Your task to perform on an android device: Turn on the flashlight Image 0: 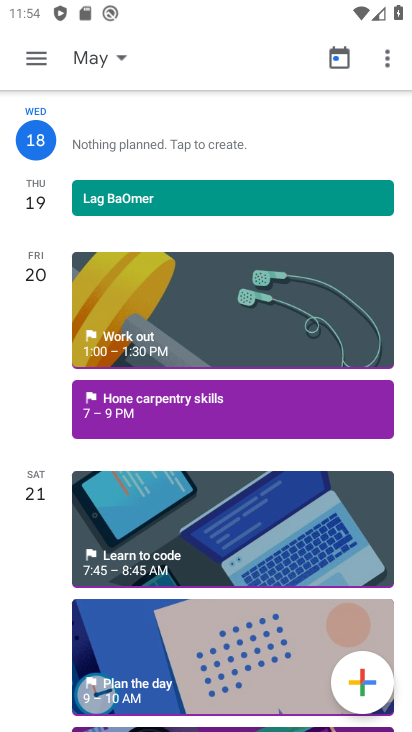
Step 0: press home button
Your task to perform on an android device: Turn on the flashlight Image 1: 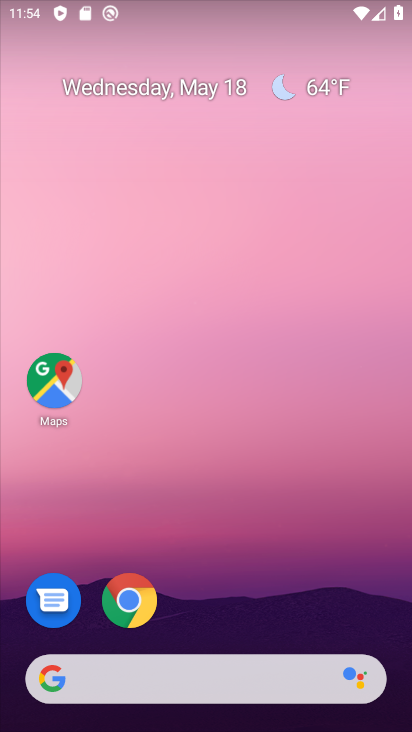
Step 1: drag from (220, 646) to (182, 87)
Your task to perform on an android device: Turn on the flashlight Image 2: 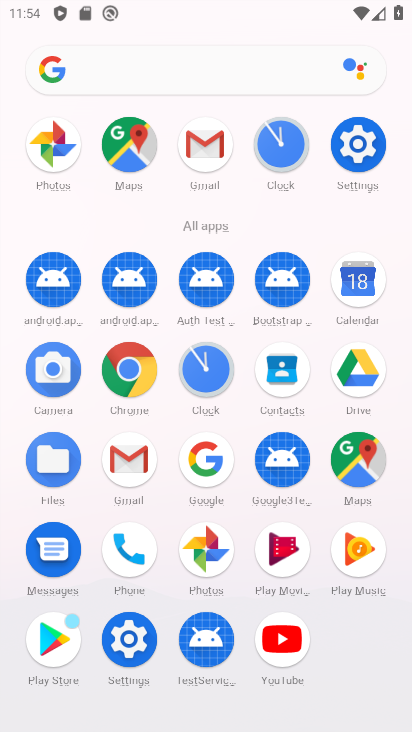
Step 2: click (92, 630)
Your task to perform on an android device: Turn on the flashlight Image 3: 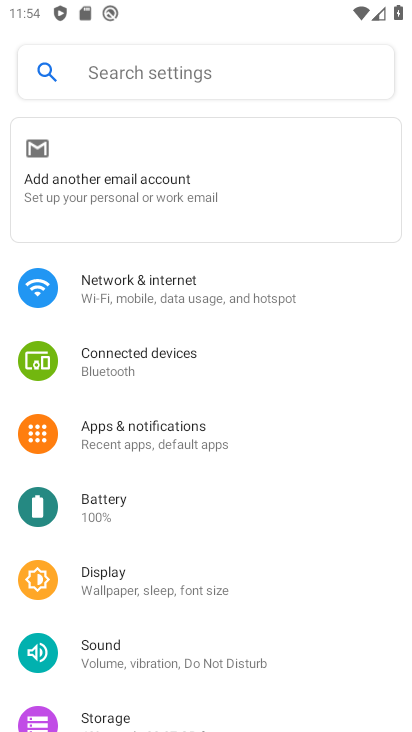
Step 3: task complete